Your task to perform on an android device: Open Youtube and go to "Your channel" Image 0: 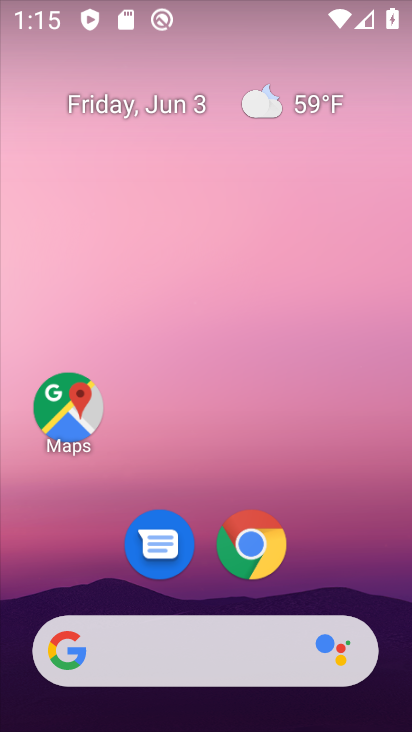
Step 0: drag from (200, 588) to (137, 3)
Your task to perform on an android device: Open Youtube and go to "Your channel" Image 1: 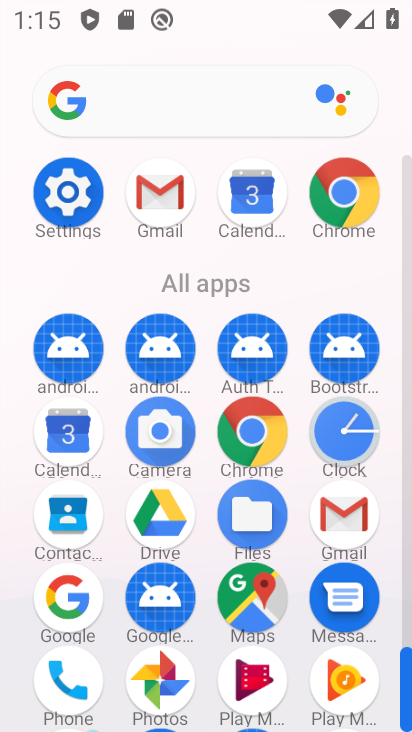
Step 1: drag from (205, 643) to (133, 149)
Your task to perform on an android device: Open Youtube and go to "Your channel" Image 2: 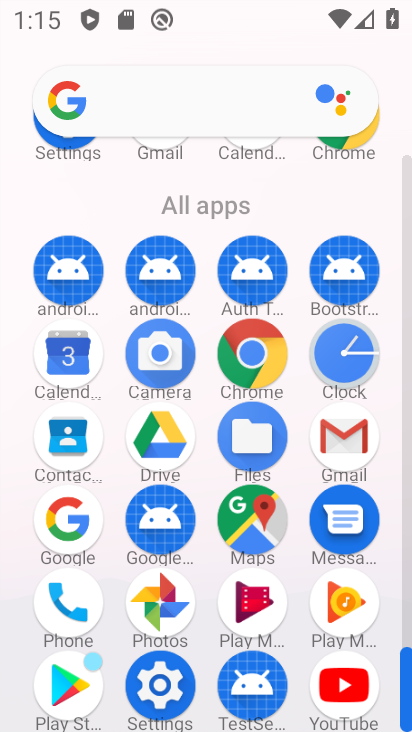
Step 2: click (325, 675)
Your task to perform on an android device: Open Youtube and go to "Your channel" Image 3: 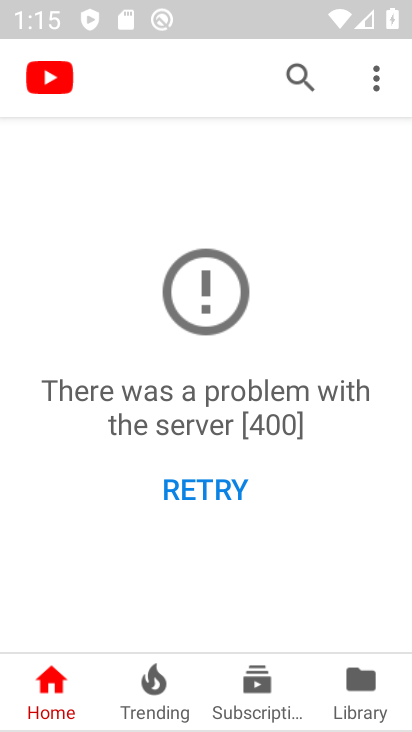
Step 3: click (388, 82)
Your task to perform on an android device: Open Youtube and go to "Your channel" Image 4: 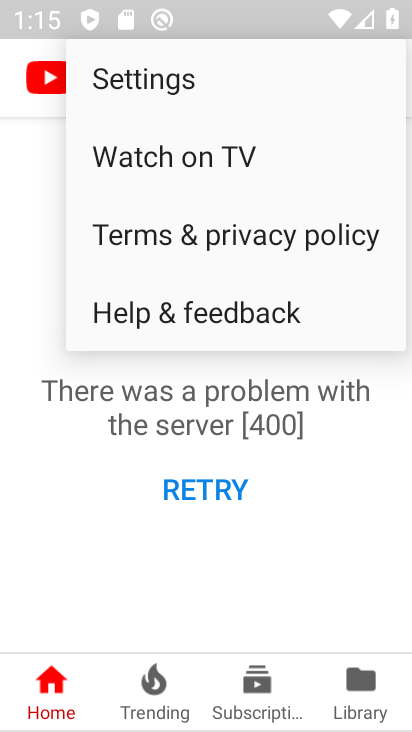
Step 4: task complete